Your task to perform on an android device: all mails in gmail Image 0: 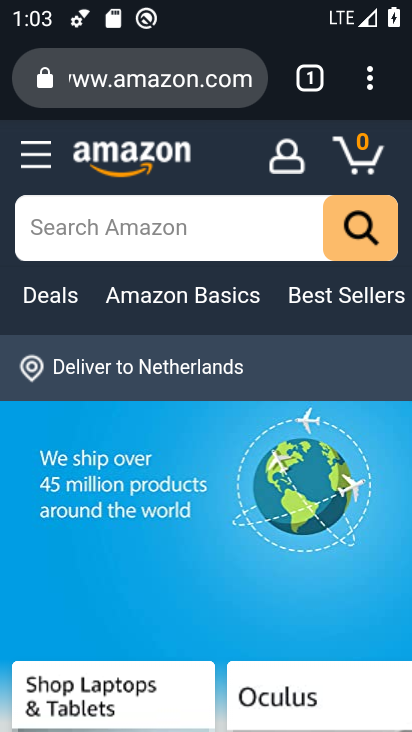
Step 0: press home button
Your task to perform on an android device: all mails in gmail Image 1: 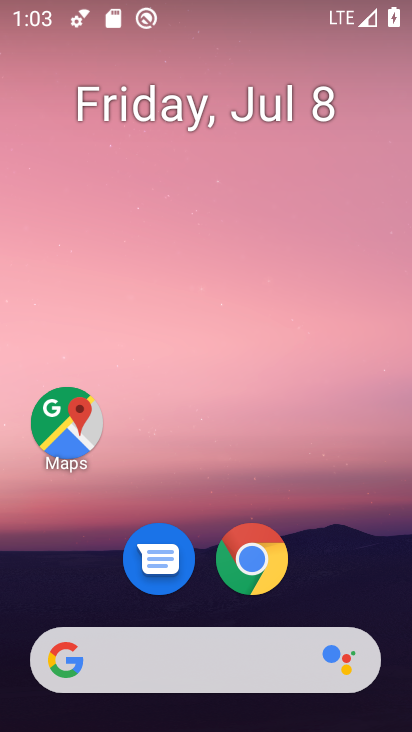
Step 1: drag from (213, 610) to (408, 348)
Your task to perform on an android device: all mails in gmail Image 2: 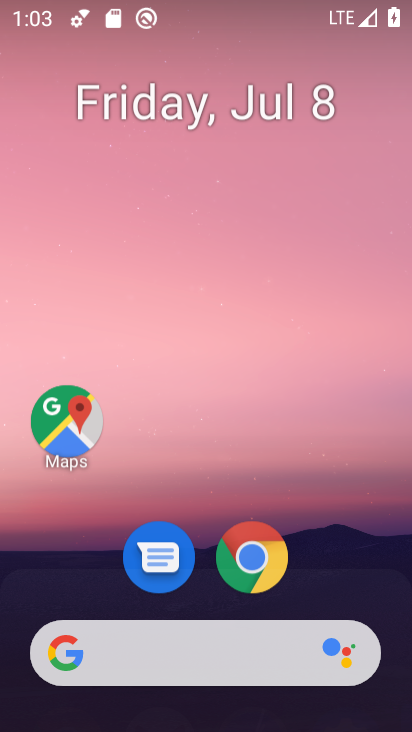
Step 2: click (352, 491)
Your task to perform on an android device: all mails in gmail Image 3: 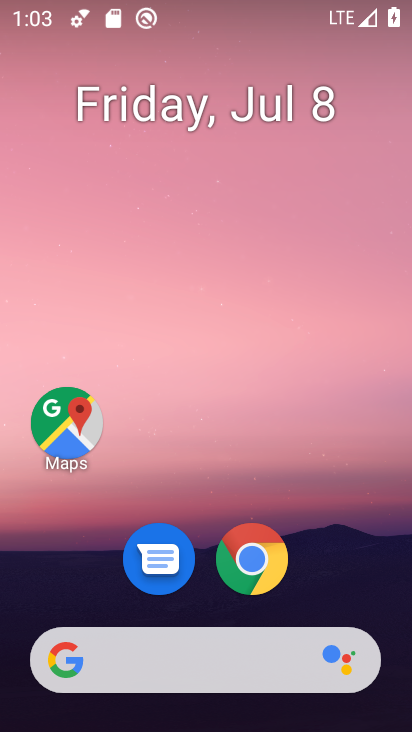
Step 3: drag from (206, 612) to (175, 4)
Your task to perform on an android device: all mails in gmail Image 4: 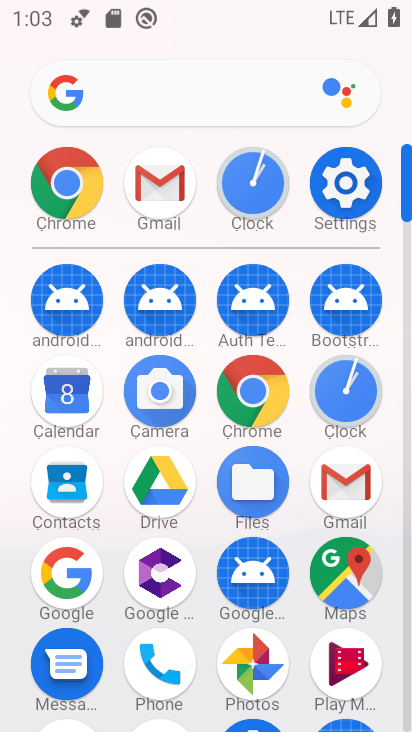
Step 4: click (357, 478)
Your task to perform on an android device: all mails in gmail Image 5: 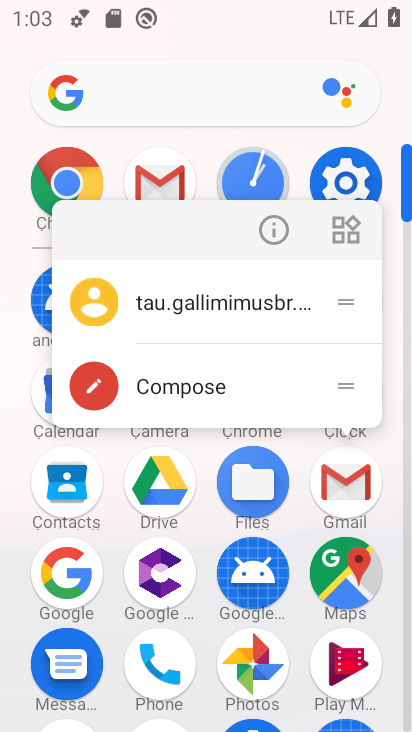
Step 5: click (338, 477)
Your task to perform on an android device: all mails in gmail Image 6: 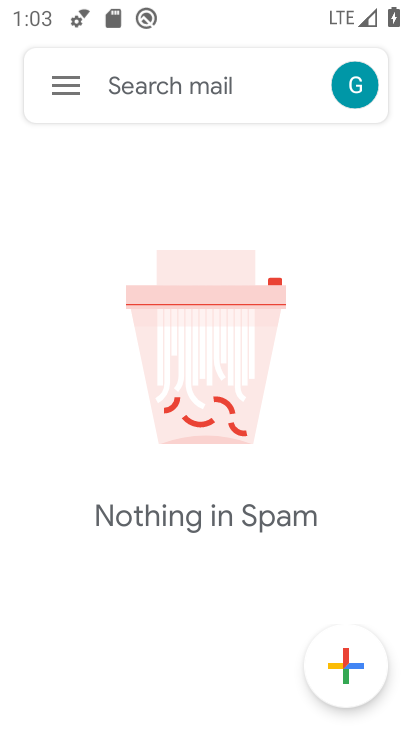
Step 6: drag from (267, 211) to (303, 503)
Your task to perform on an android device: all mails in gmail Image 7: 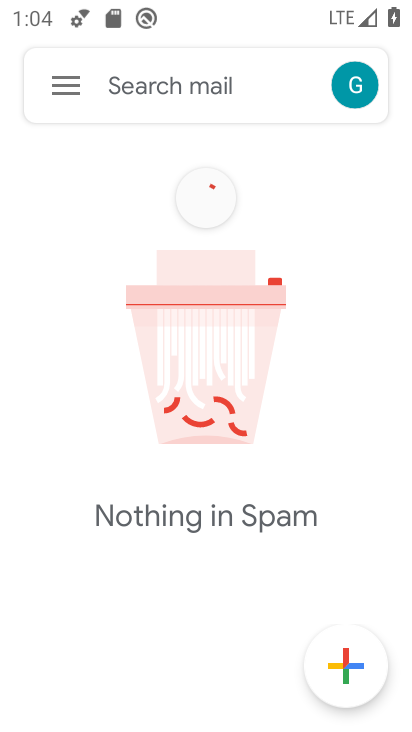
Step 7: click (46, 86)
Your task to perform on an android device: all mails in gmail Image 8: 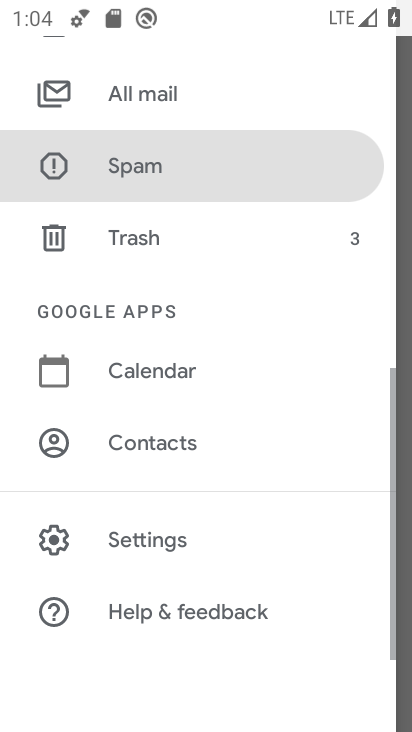
Step 8: drag from (151, 170) to (153, 408)
Your task to perform on an android device: all mails in gmail Image 9: 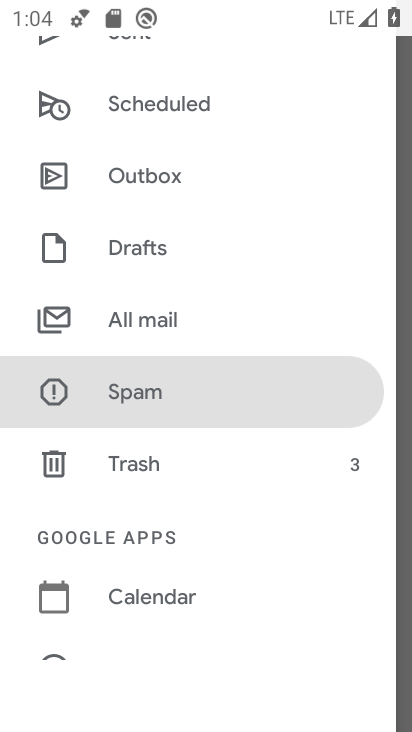
Step 9: click (139, 342)
Your task to perform on an android device: all mails in gmail Image 10: 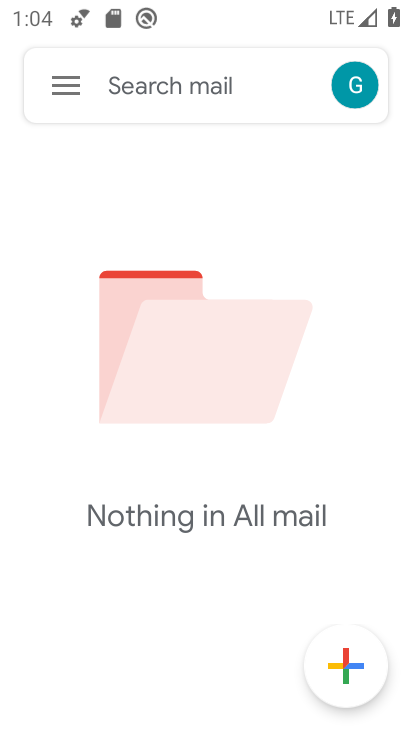
Step 10: task complete